Your task to perform on an android device: Is it going to rain today? Image 0: 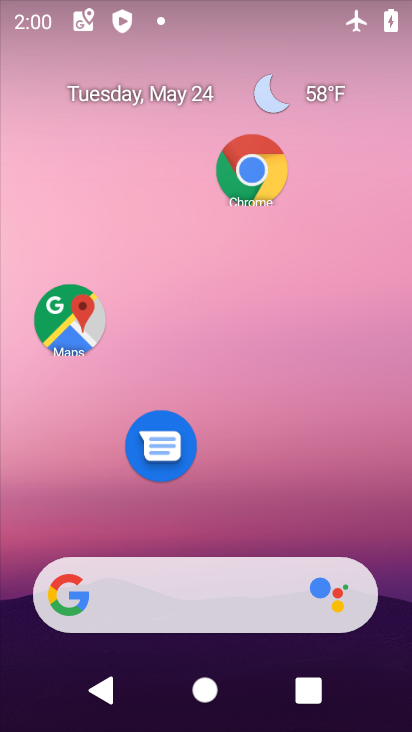
Step 0: drag from (244, 603) to (224, 116)
Your task to perform on an android device: Is it going to rain today? Image 1: 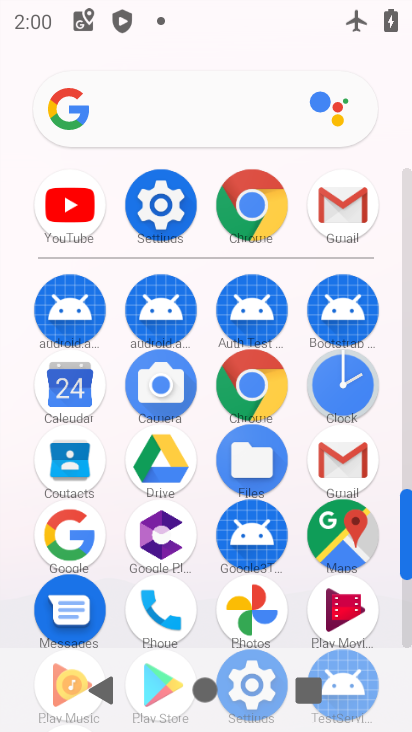
Step 1: click (241, 196)
Your task to perform on an android device: Is it going to rain today? Image 2: 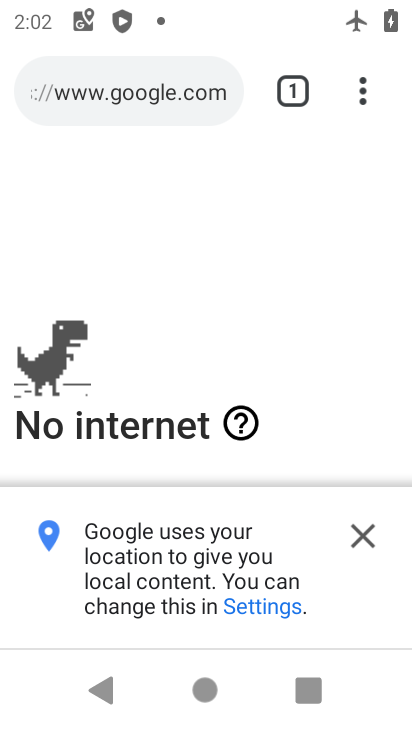
Step 2: click (358, 540)
Your task to perform on an android device: Is it going to rain today? Image 3: 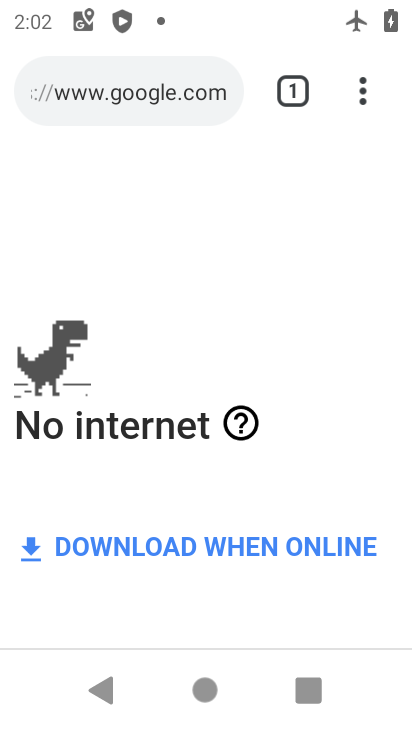
Step 3: press home button
Your task to perform on an android device: Is it going to rain today? Image 4: 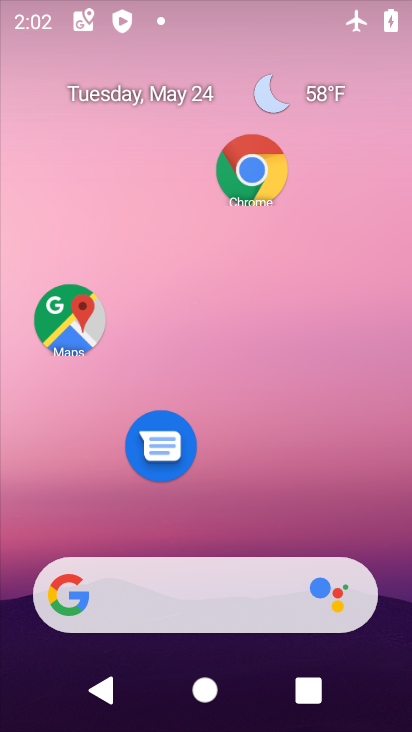
Step 4: drag from (239, 647) to (240, 12)
Your task to perform on an android device: Is it going to rain today? Image 5: 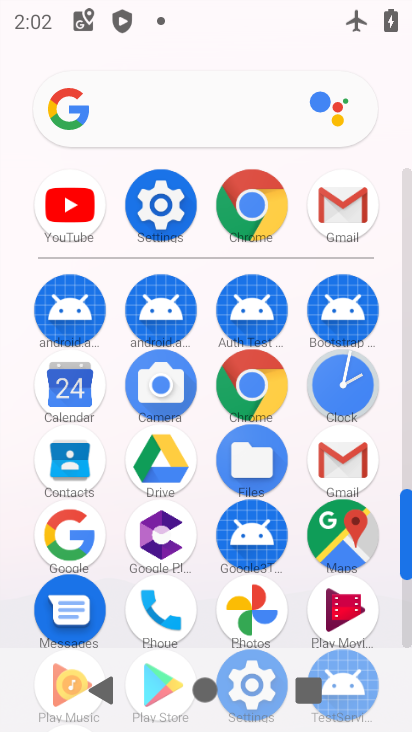
Step 5: click (82, 536)
Your task to perform on an android device: Is it going to rain today? Image 6: 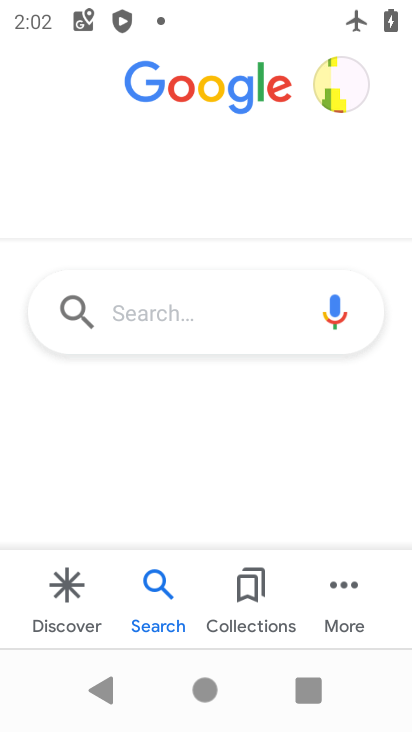
Step 6: click (52, 591)
Your task to perform on an android device: Is it going to rain today? Image 7: 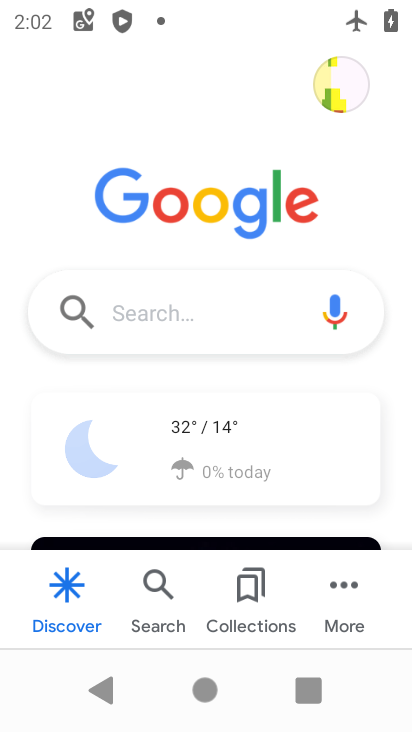
Step 7: click (155, 337)
Your task to perform on an android device: Is it going to rain today? Image 8: 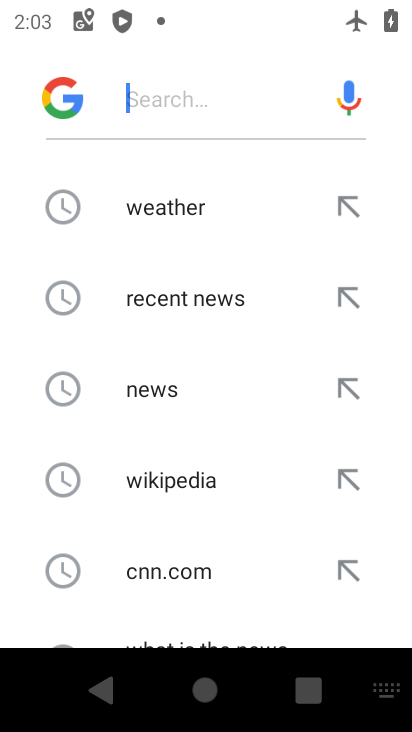
Step 8: click (190, 214)
Your task to perform on an android device: Is it going to rain today? Image 9: 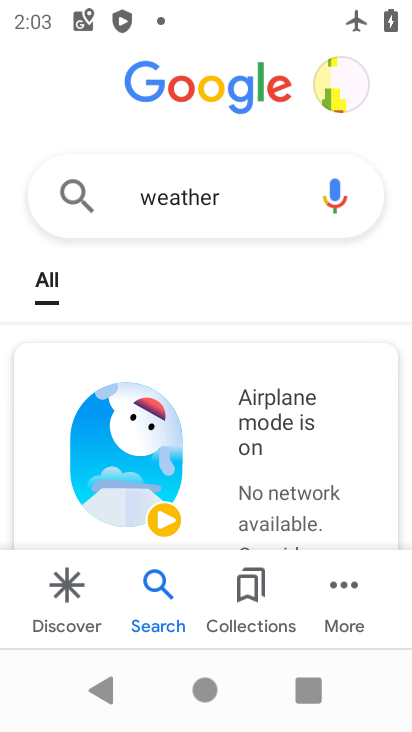
Step 9: task complete